Your task to perform on an android device: open chrome privacy settings Image 0: 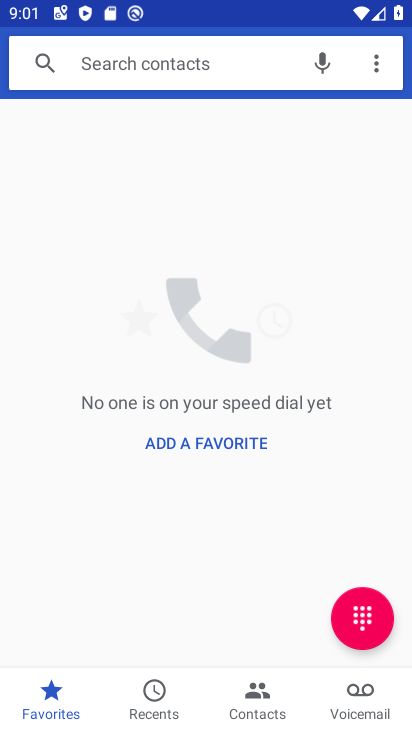
Step 0: press home button
Your task to perform on an android device: open chrome privacy settings Image 1: 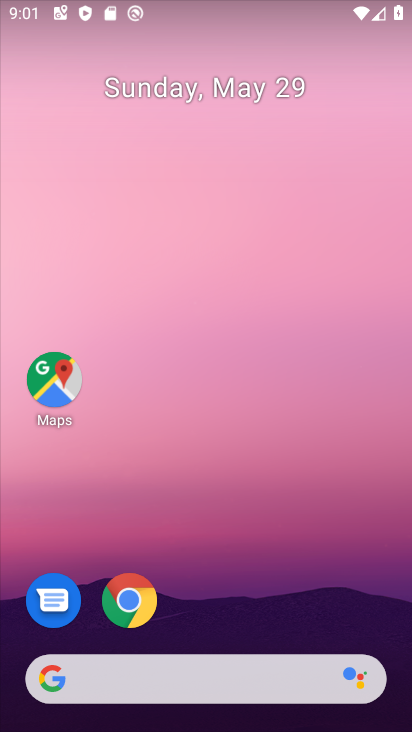
Step 1: click (136, 605)
Your task to perform on an android device: open chrome privacy settings Image 2: 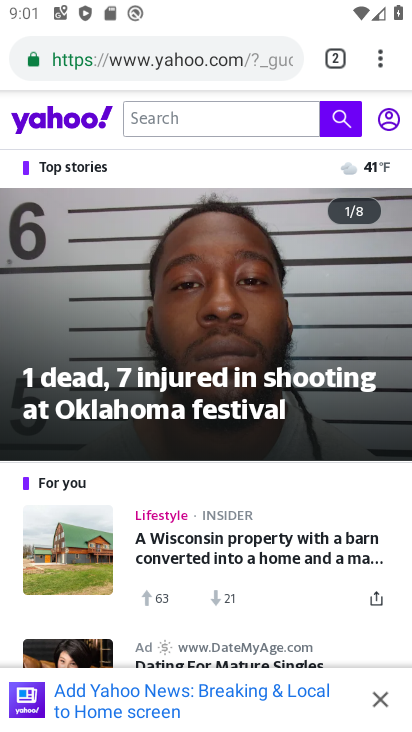
Step 2: click (381, 62)
Your task to perform on an android device: open chrome privacy settings Image 3: 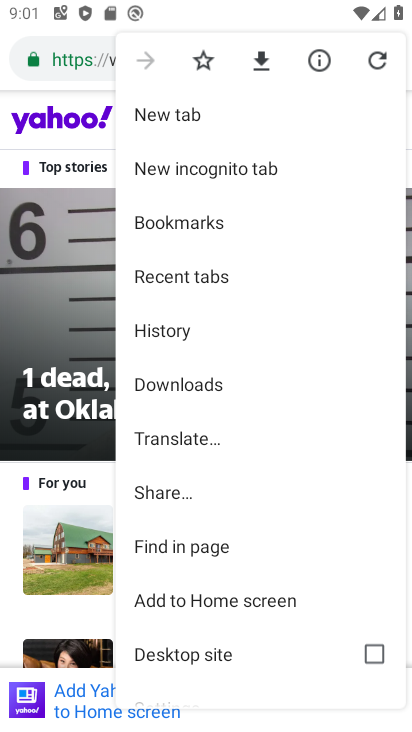
Step 3: drag from (176, 631) to (174, 98)
Your task to perform on an android device: open chrome privacy settings Image 4: 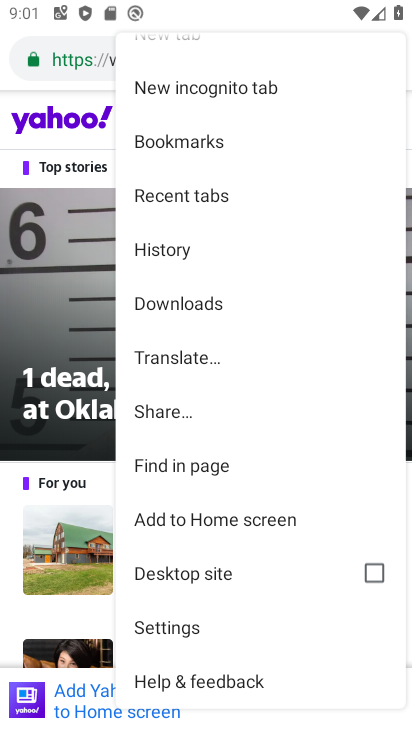
Step 4: click (167, 630)
Your task to perform on an android device: open chrome privacy settings Image 5: 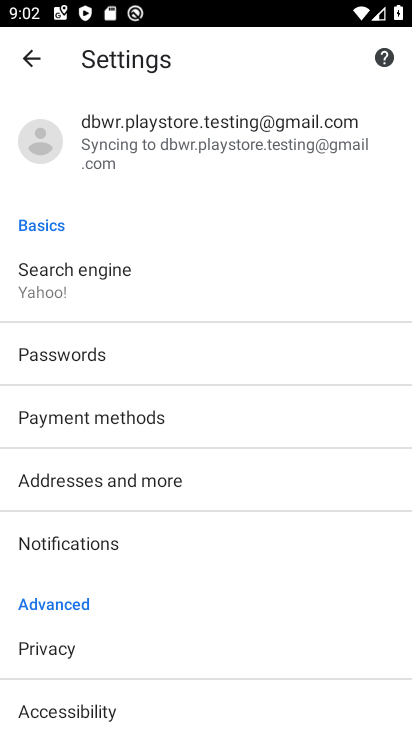
Step 5: click (41, 650)
Your task to perform on an android device: open chrome privacy settings Image 6: 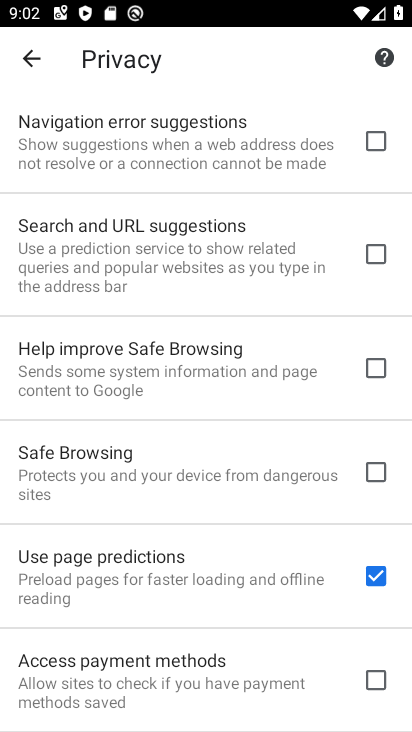
Step 6: task complete